Your task to perform on an android device: Search for Italian restaurants on Maps Image 0: 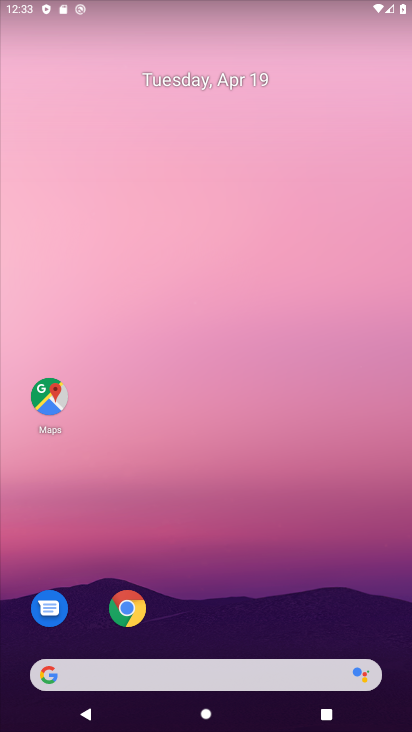
Step 0: drag from (198, 498) to (283, 74)
Your task to perform on an android device: Search for Italian restaurants on Maps Image 1: 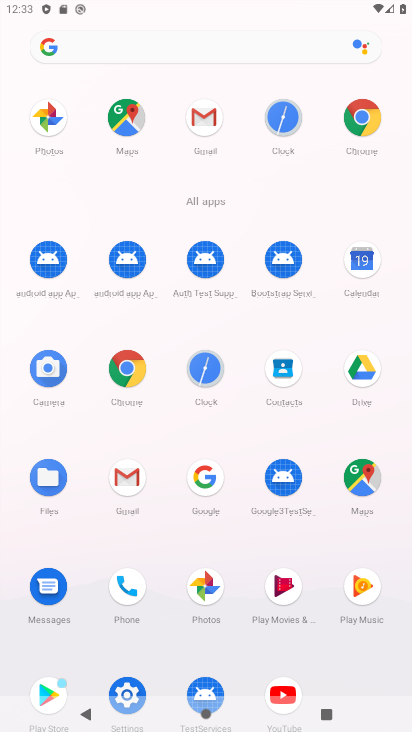
Step 1: click (361, 478)
Your task to perform on an android device: Search for Italian restaurants on Maps Image 2: 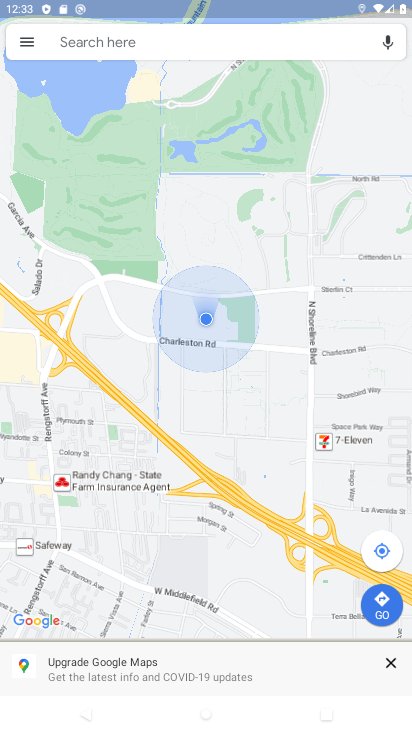
Step 2: click (125, 49)
Your task to perform on an android device: Search for Italian restaurants on Maps Image 3: 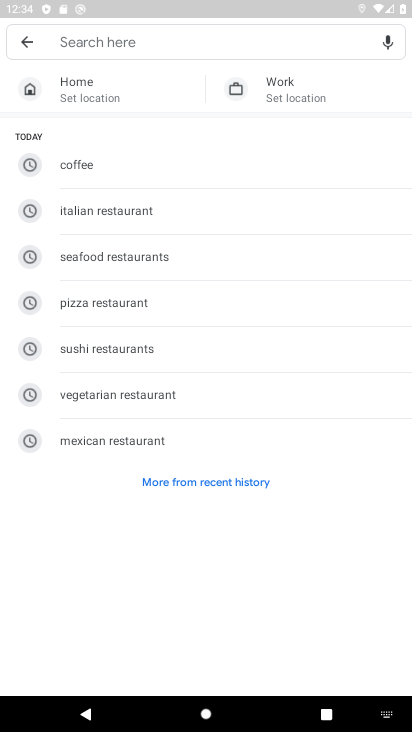
Step 3: type "Italian restaurants "
Your task to perform on an android device: Search for Italian restaurants on Maps Image 4: 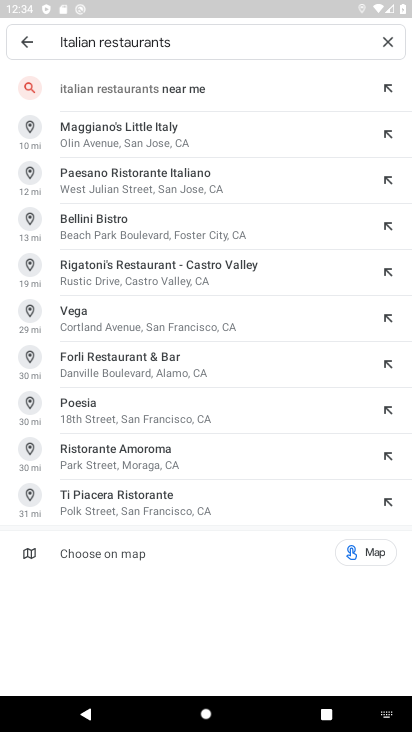
Step 4: click (199, 95)
Your task to perform on an android device: Search for Italian restaurants on Maps Image 5: 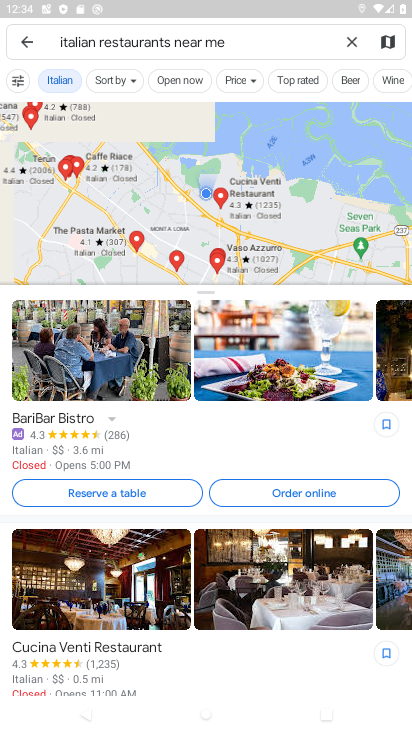
Step 5: task complete